Your task to perform on an android device: Go to wifi settings Image 0: 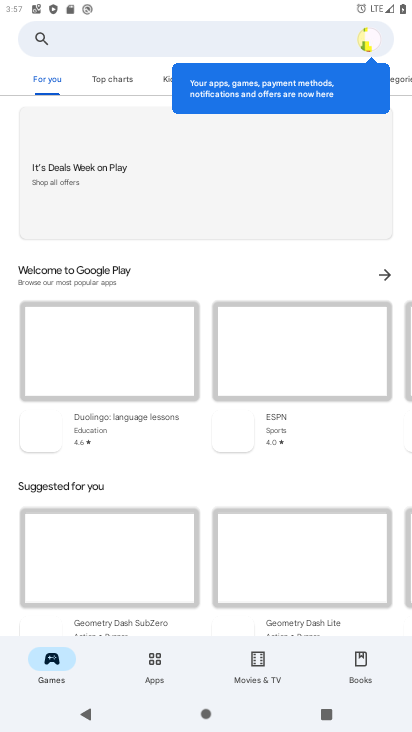
Step 0: press home button
Your task to perform on an android device: Go to wifi settings Image 1: 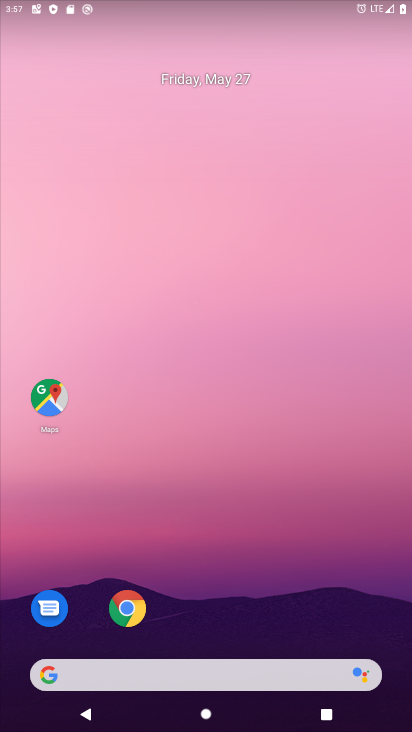
Step 1: drag from (246, 657) to (259, 266)
Your task to perform on an android device: Go to wifi settings Image 2: 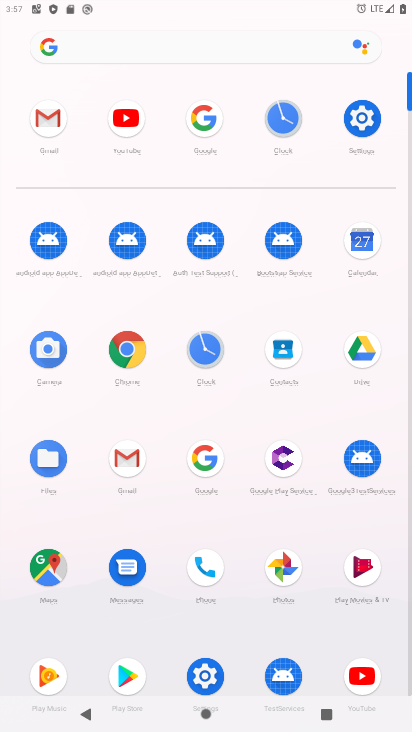
Step 2: click (367, 113)
Your task to perform on an android device: Go to wifi settings Image 3: 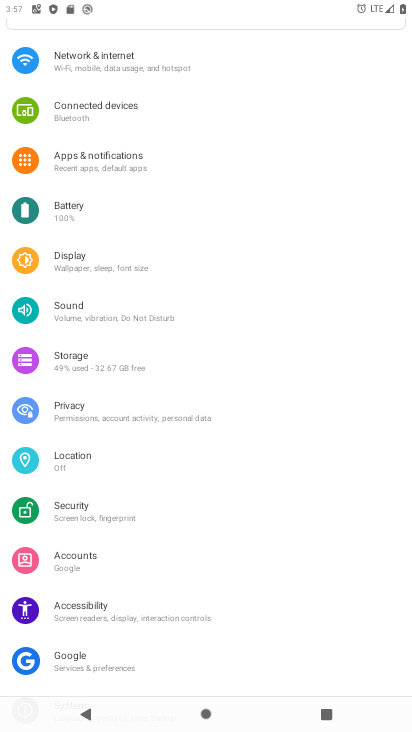
Step 3: click (118, 64)
Your task to perform on an android device: Go to wifi settings Image 4: 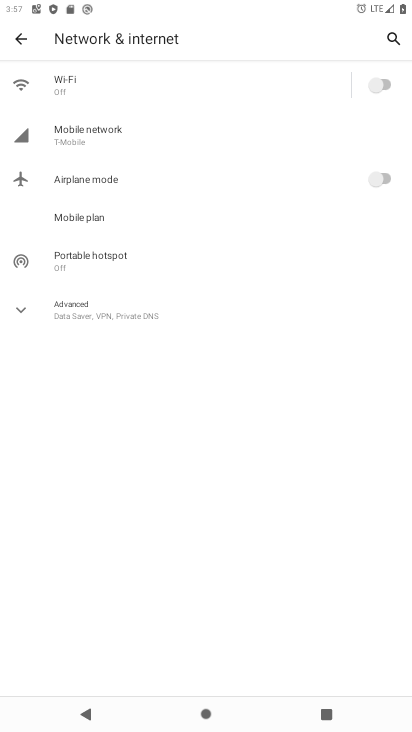
Step 4: click (219, 88)
Your task to perform on an android device: Go to wifi settings Image 5: 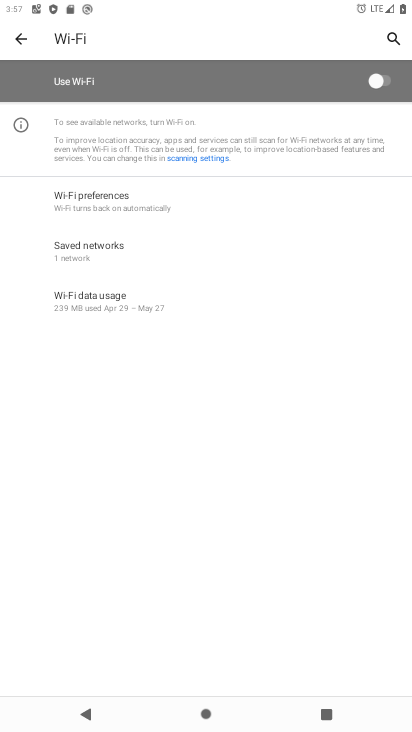
Step 5: click (384, 80)
Your task to perform on an android device: Go to wifi settings Image 6: 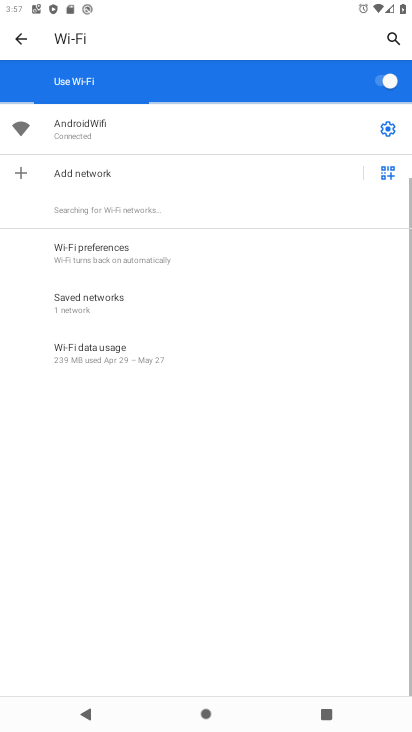
Step 6: click (384, 126)
Your task to perform on an android device: Go to wifi settings Image 7: 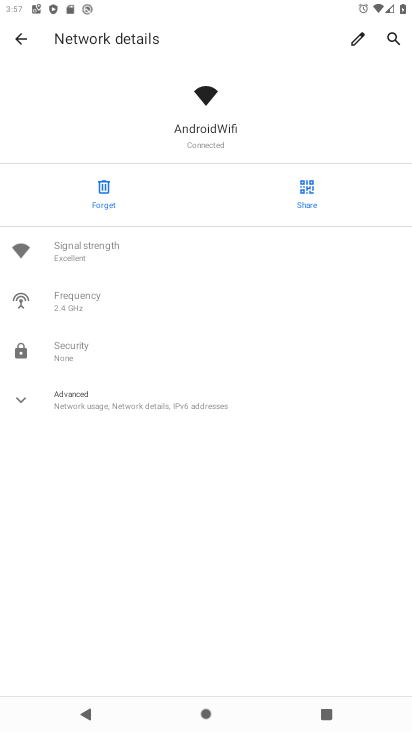
Step 7: click (115, 395)
Your task to perform on an android device: Go to wifi settings Image 8: 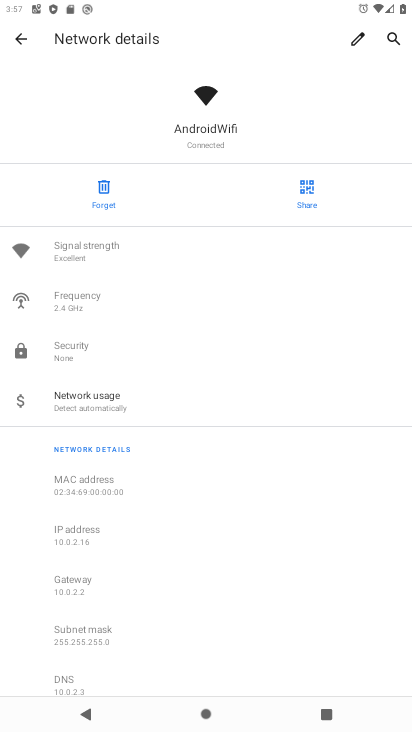
Step 8: task complete